Your task to perform on an android device: set the timer Image 0: 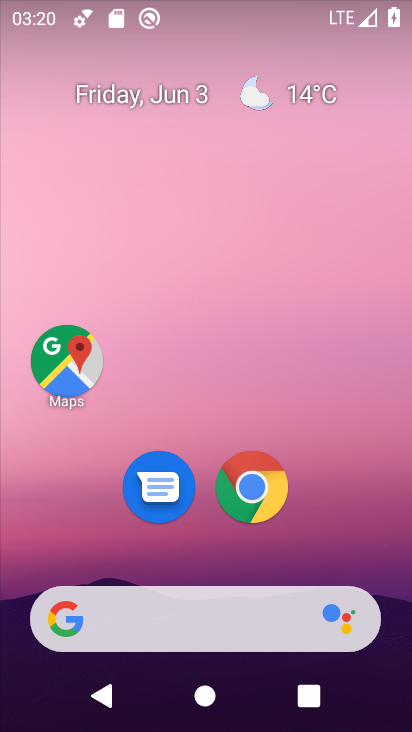
Step 0: drag from (336, 533) to (204, 31)
Your task to perform on an android device: set the timer Image 1: 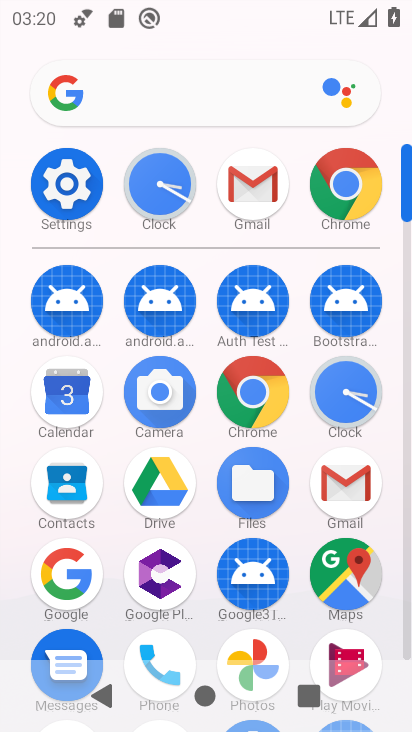
Step 1: click (156, 181)
Your task to perform on an android device: set the timer Image 2: 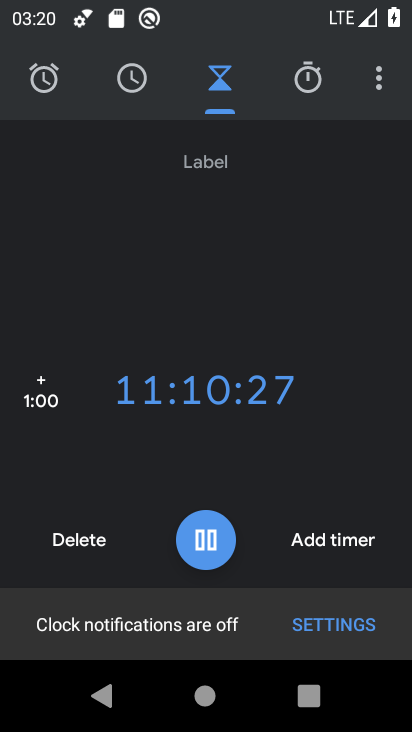
Step 2: click (65, 543)
Your task to perform on an android device: set the timer Image 3: 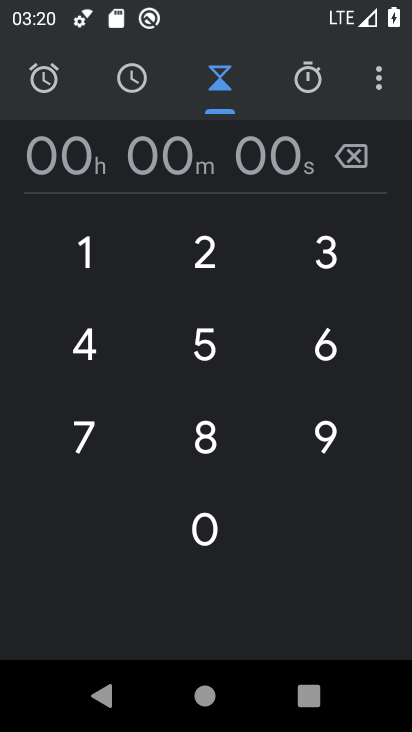
Step 3: click (99, 250)
Your task to perform on an android device: set the timer Image 4: 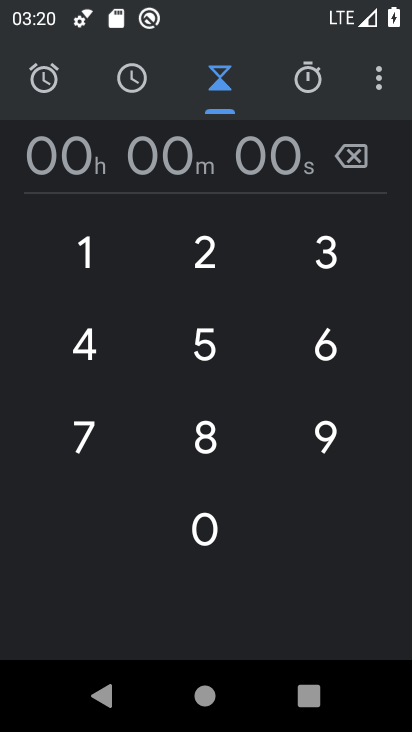
Step 4: click (98, 245)
Your task to perform on an android device: set the timer Image 5: 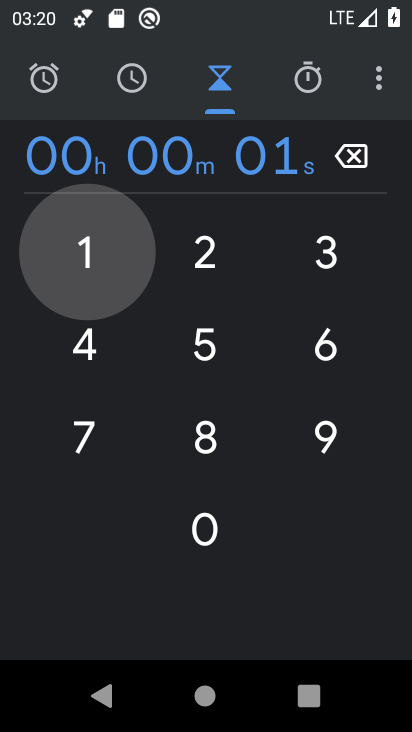
Step 5: click (98, 245)
Your task to perform on an android device: set the timer Image 6: 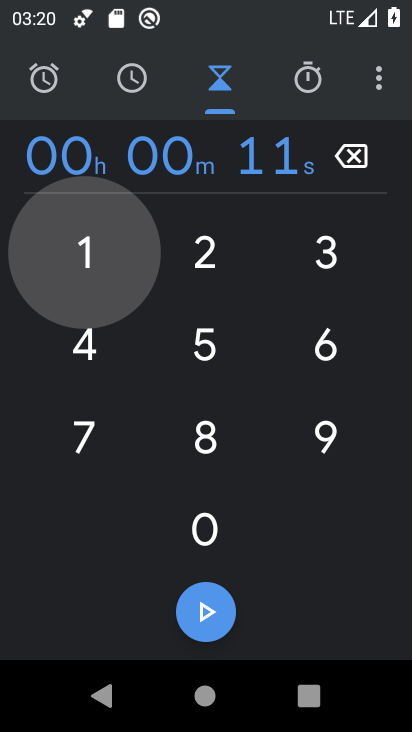
Step 6: click (99, 244)
Your task to perform on an android device: set the timer Image 7: 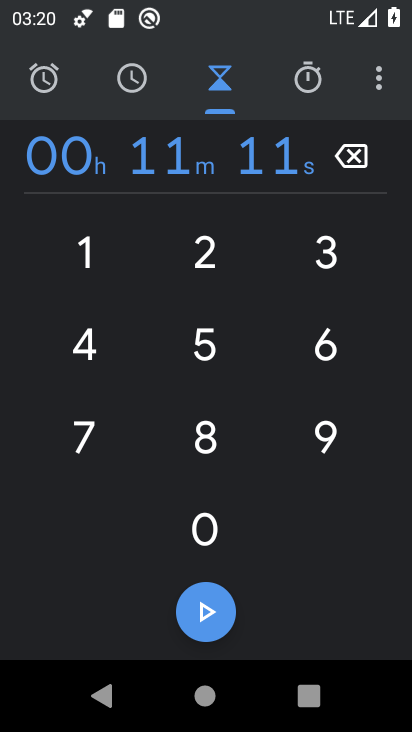
Step 7: click (224, 630)
Your task to perform on an android device: set the timer Image 8: 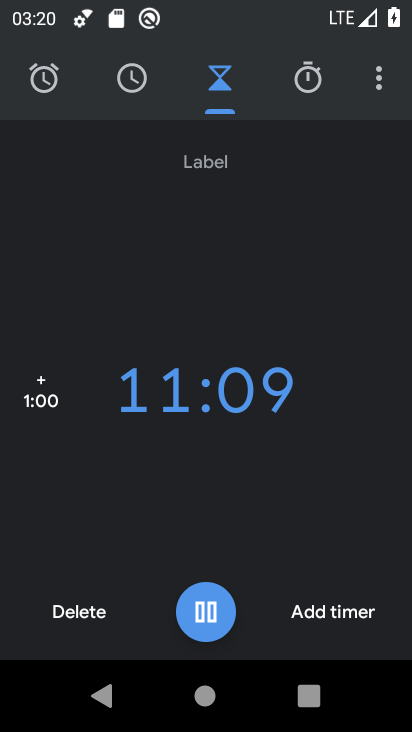
Step 8: task complete